Your task to perform on an android device: open chrome privacy settings Image 0: 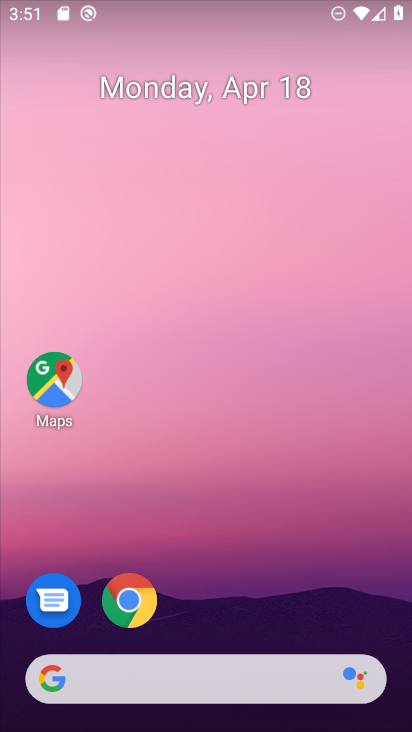
Step 0: click (151, 611)
Your task to perform on an android device: open chrome privacy settings Image 1: 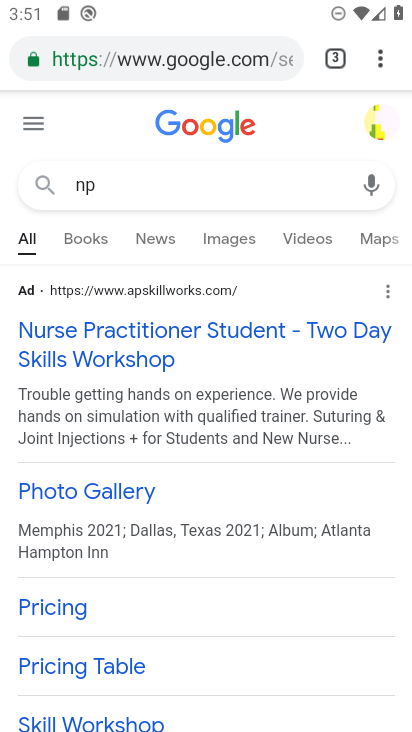
Step 1: click (372, 63)
Your task to perform on an android device: open chrome privacy settings Image 2: 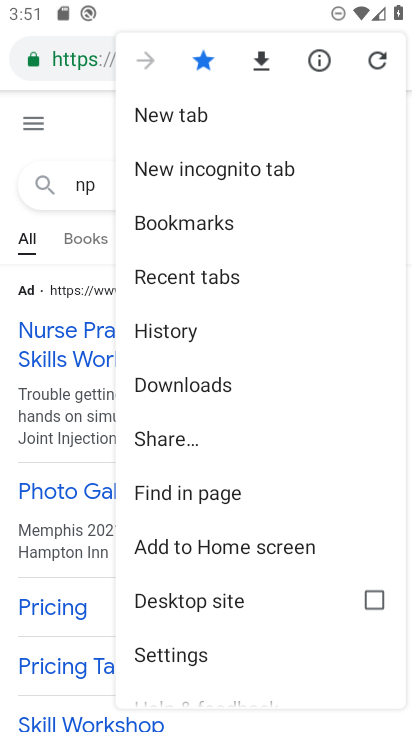
Step 2: click (172, 653)
Your task to perform on an android device: open chrome privacy settings Image 3: 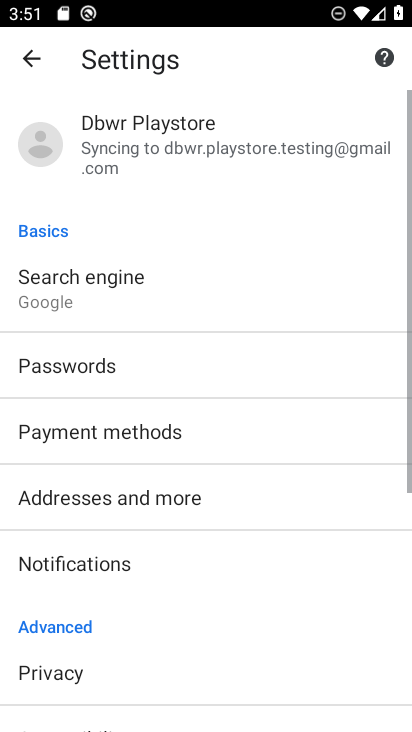
Step 3: drag from (123, 654) to (122, 606)
Your task to perform on an android device: open chrome privacy settings Image 4: 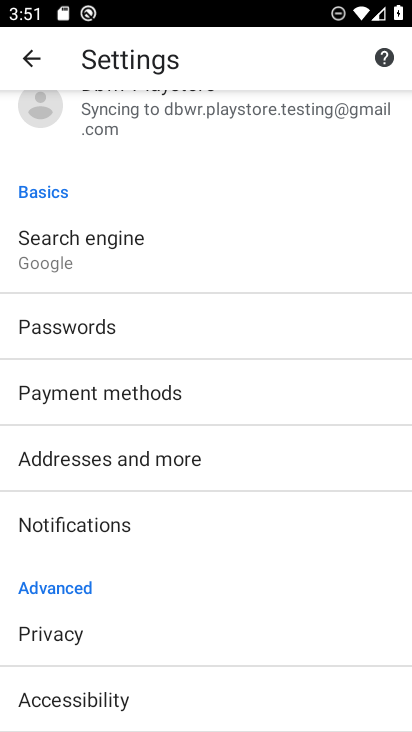
Step 4: click (69, 631)
Your task to perform on an android device: open chrome privacy settings Image 5: 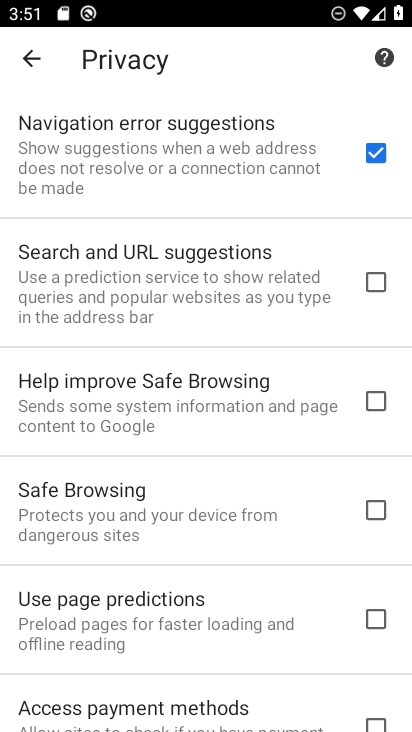
Step 5: task complete